Your task to perform on an android device: toggle priority inbox in the gmail app Image 0: 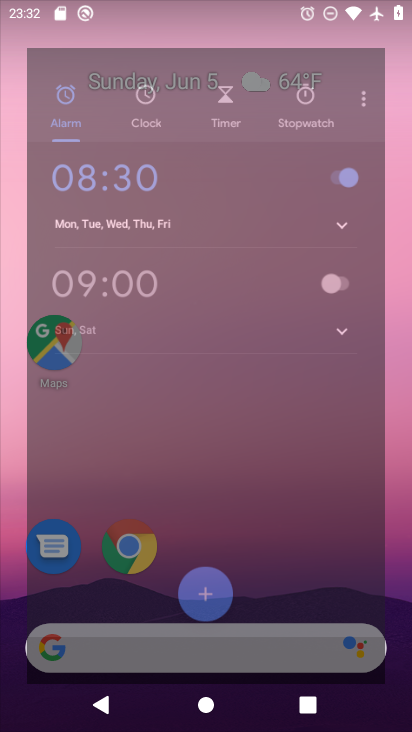
Step 0: drag from (189, 518) to (161, 262)
Your task to perform on an android device: toggle priority inbox in the gmail app Image 1: 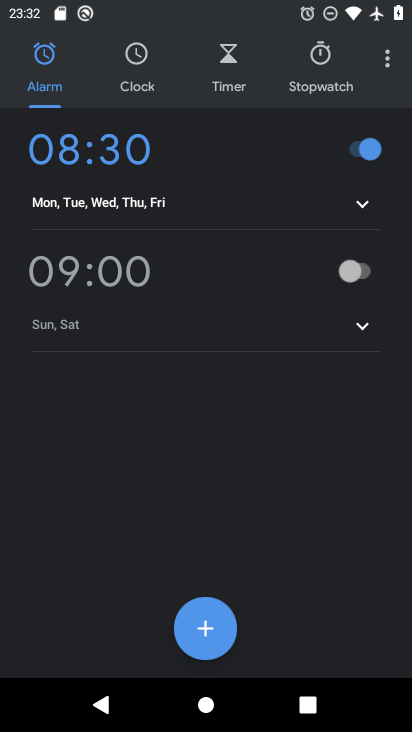
Step 1: drag from (280, 576) to (279, 93)
Your task to perform on an android device: toggle priority inbox in the gmail app Image 2: 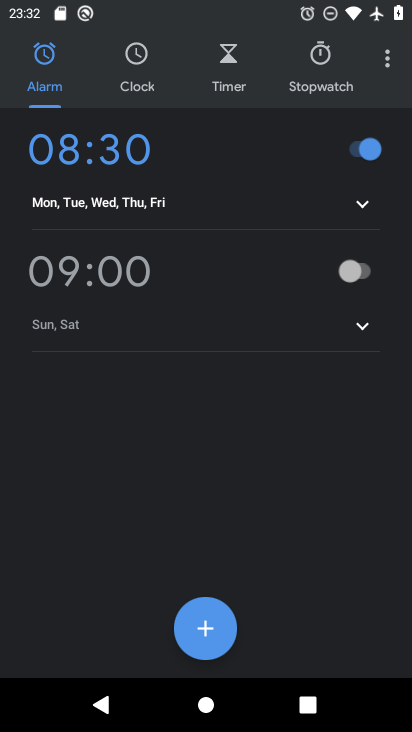
Step 2: click (390, 67)
Your task to perform on an android device: toggle priority inbox in the gmail app Image 3: 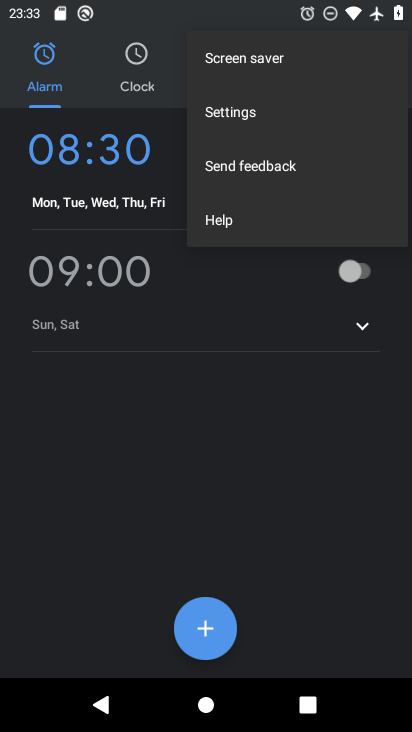
Step 3: press home button
Your task to perform on an android device: toggle priority inbox in the gmail app Image 4: 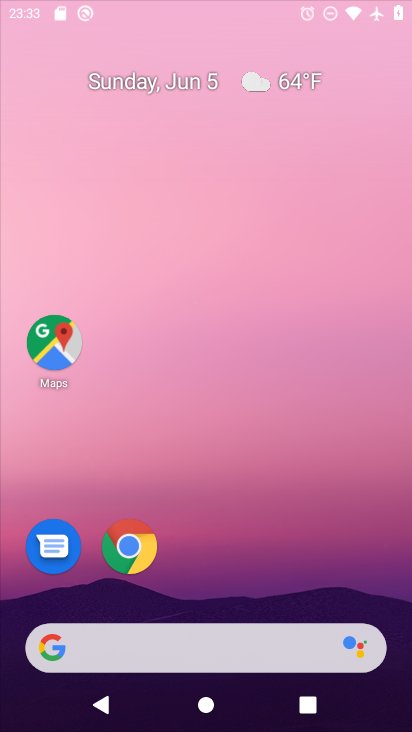
Step 4: drag from (176, 572) to (258, 5)
Your task to perform on an android device: toggle priority inbox in the gmail app Image 5: 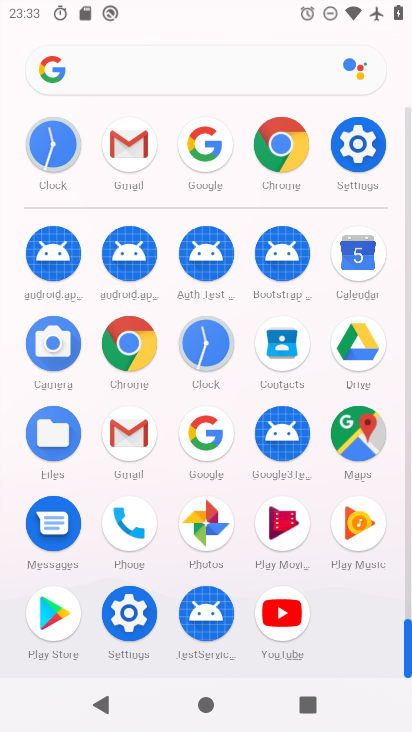
Step 5: click (125, 451)
Your task to perform on an android device: toggle priority inbox in the gmail app Image 6: 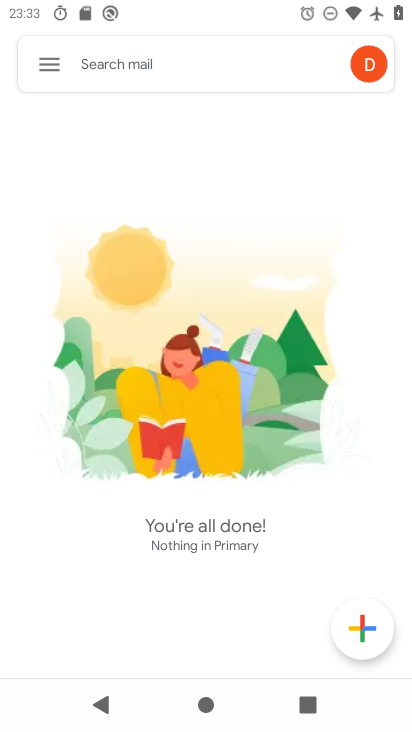
Step 6: click (45, 61)
Your task to perform on an android device: toggle priority inbox in the gmail app Image 7: 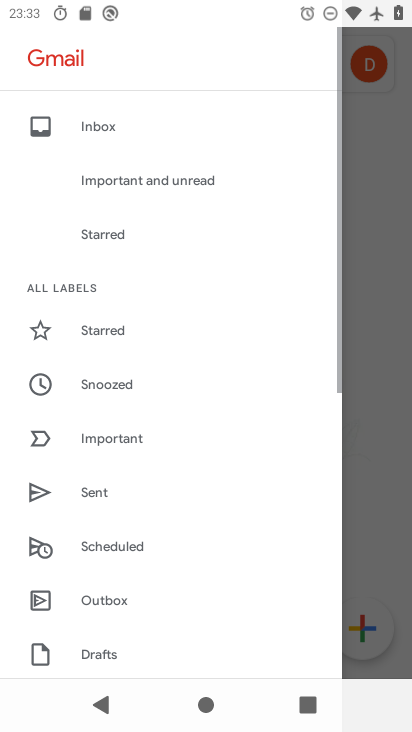
Step 7: drag from (191, 493) to (206, 134)
Your task to perform on an android device: toggle priority inbox in the gmail app Image 8: 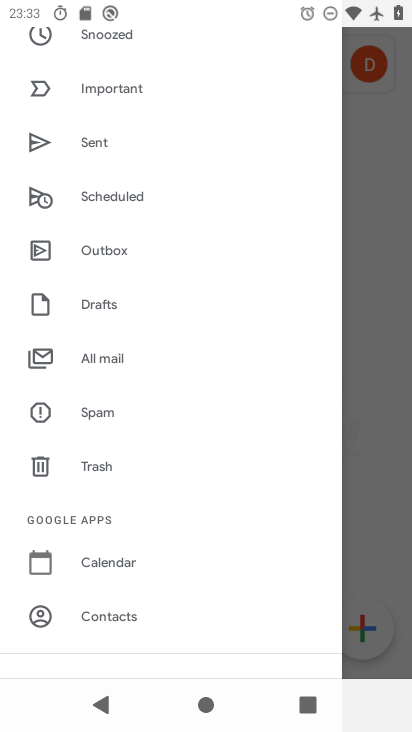
Step 8: drag from (140, 543) to (193, 212)
Your task to perform on an android device: toggle priority inbox in the gmail app Image 9: 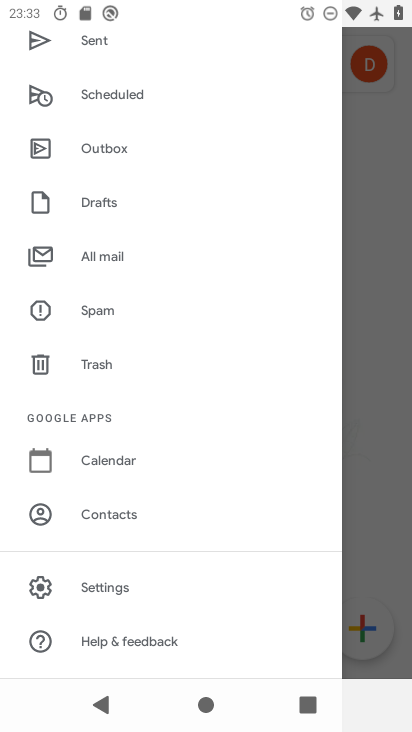
Step 9: click (95, 608)
Your task to perform on an android device: toggle priority inbox in the gmail app Image 10: 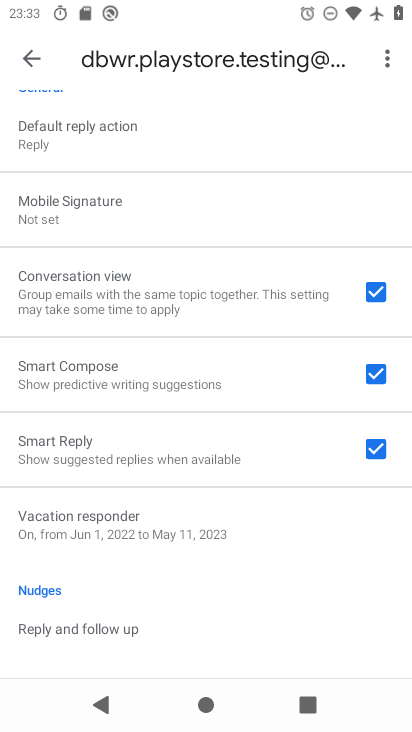
Step 10: drag from (238, 111) to (214, 717)
Your task to perform on an android device: toggle priority inbox in the gmail app Image 11: 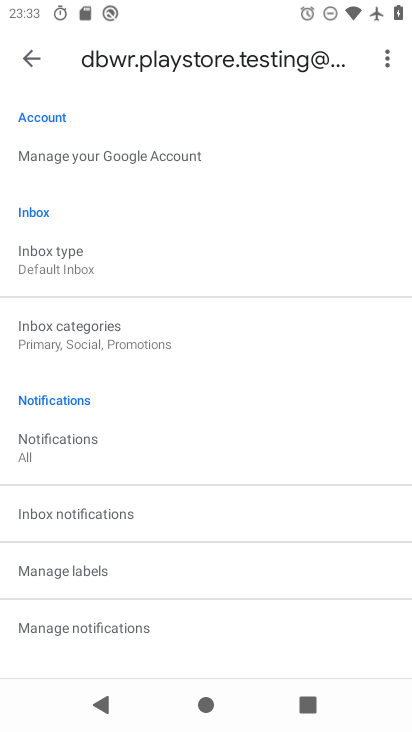
Step 11: drag from (142, 133) to (261, 715)
Your task to perform on an android device: toggle priority inbox in the gmail app Image 12: 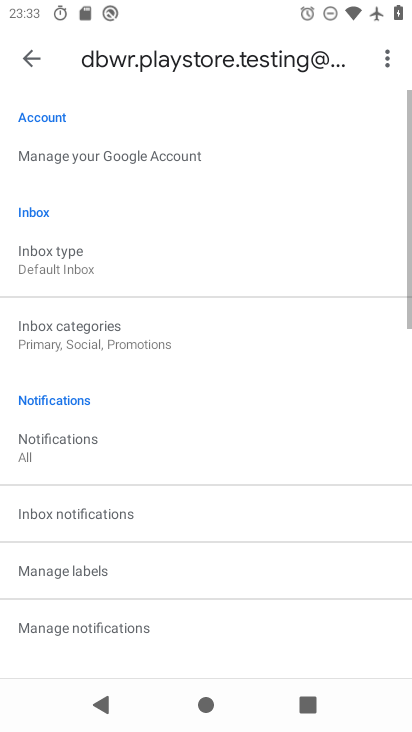
Step 12: click (61, 244)
Your task to perform on an android device: toggle priority inbox in the gmail app Image 13: 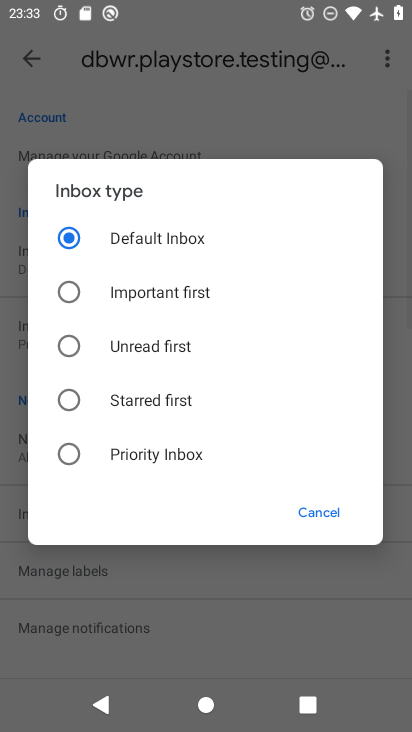
Step 13: click (156, 453)
Your task to perform on an android device: toggle priority inbox in the gmail app Image 14: 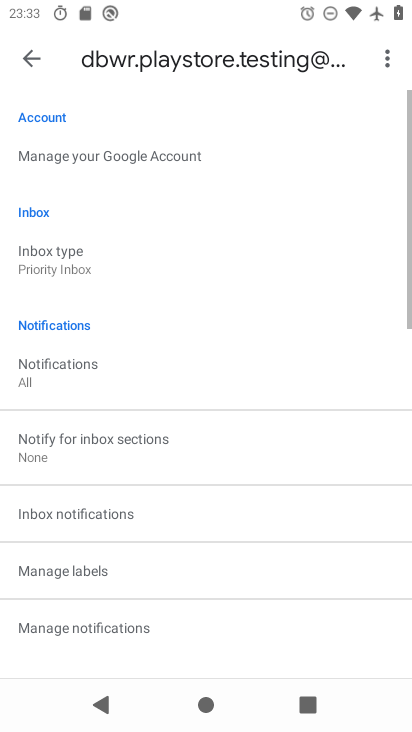
Step 14: task complete